Your task to perform on an android device: Show me recent news Image 0: 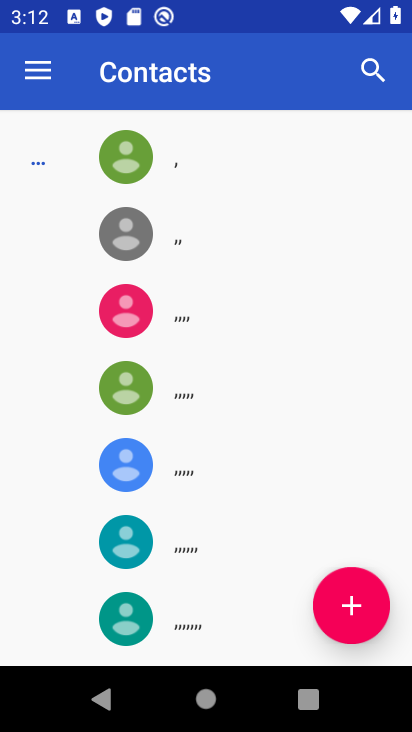
Step 0: press home button
Your task to perform on an android device: Show me recent news Image 1: 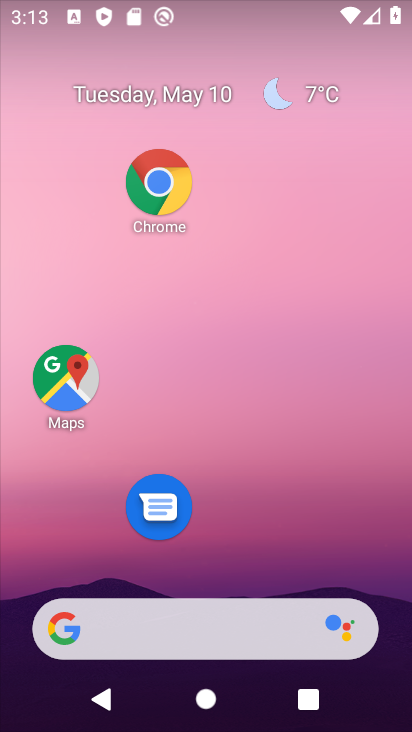
Step 1: drag from (221, 582) to (206, 36)
Your task to perform on an android device: Show me recent news Image 2: 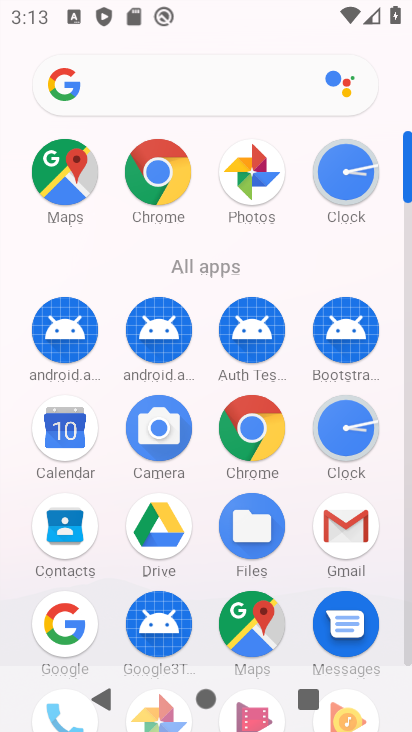
Step 2: click (249, 423)
Your task to perform on an android device: Show me recent news Image 3: 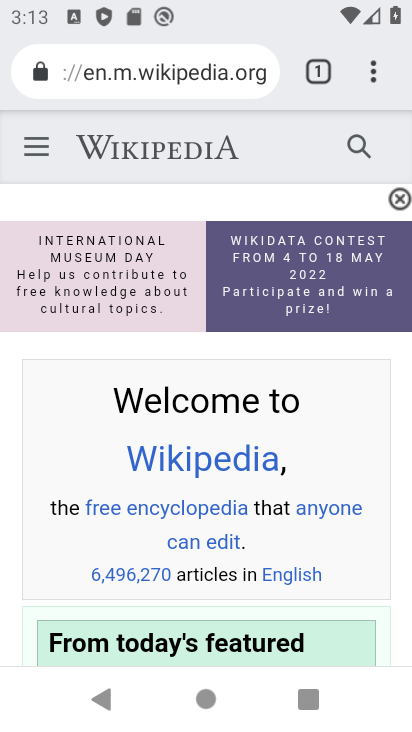
Step 3: click (320, 66)
Your task to perform on an android device: Show me recent news Image 4: 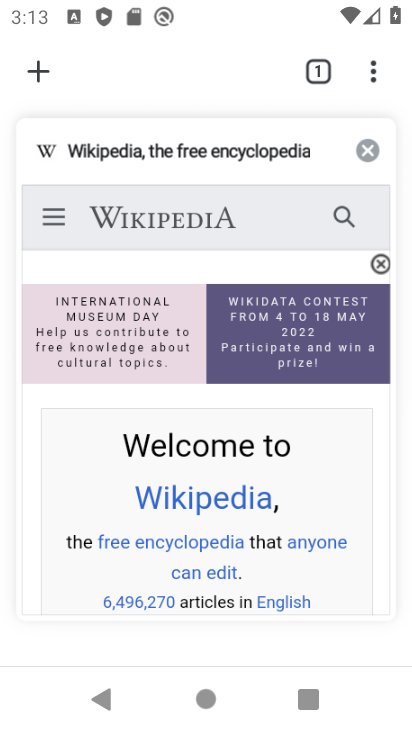
Step 4: click (28, 74)
Your task to perform on an android device: Show me recent news Image 5: 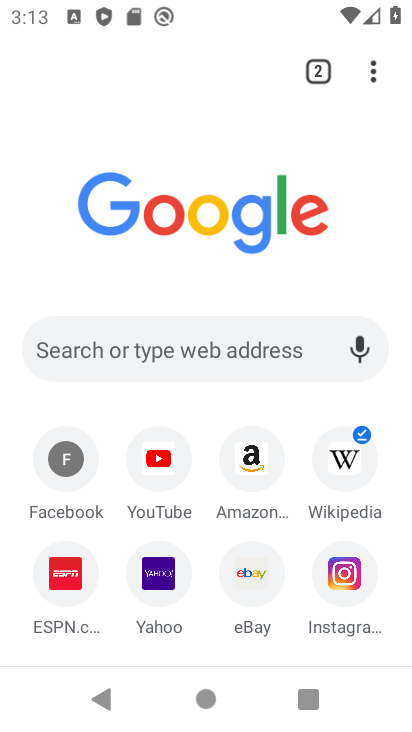
Step 5: drag from (197, 548) to (196, 158)
Your task to perform on an android device: Show me recent news Image 6: 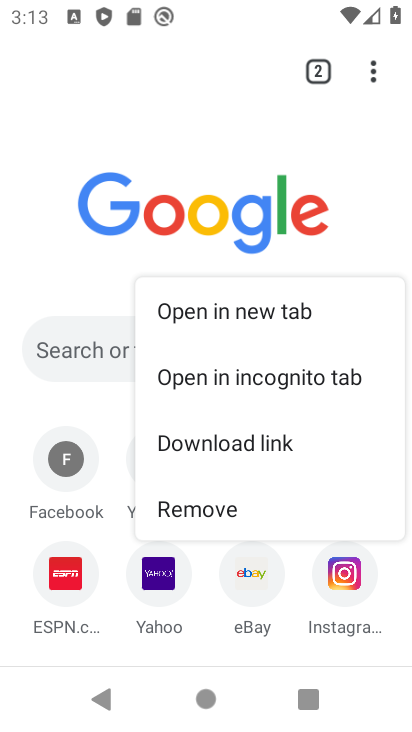
Step 6: click (86, 259)
Your task to perform on an android device: Show me recent news Image 7: 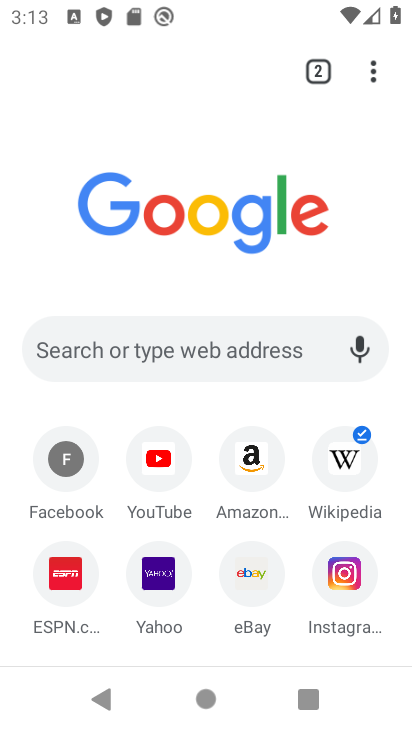
Step 7: task complete